Your task to perform on an android device: set an alarm Image 0: 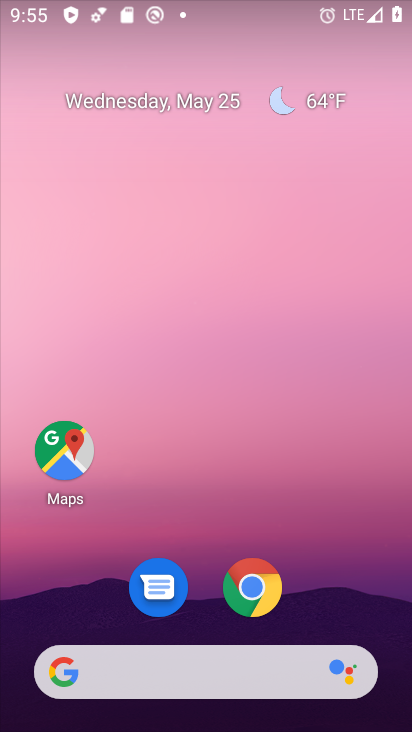
Step 0: drag from (100, 643) to (199, 195)
Your task to perform on an android device: set an alarm Image 1: 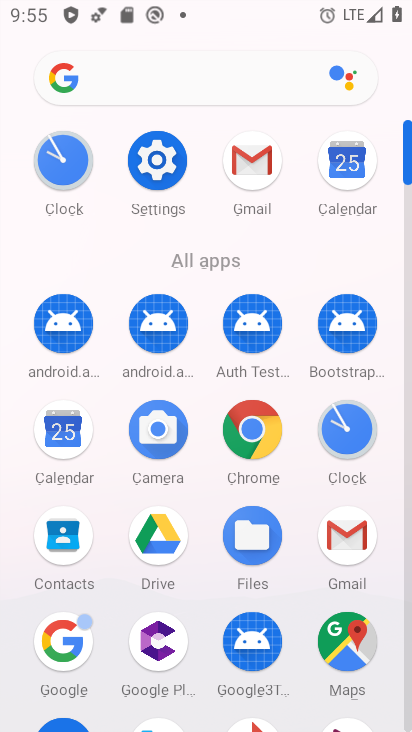
Step 1: click (338, 450)
Your task to perform on an android device: set an alarm Image 2: 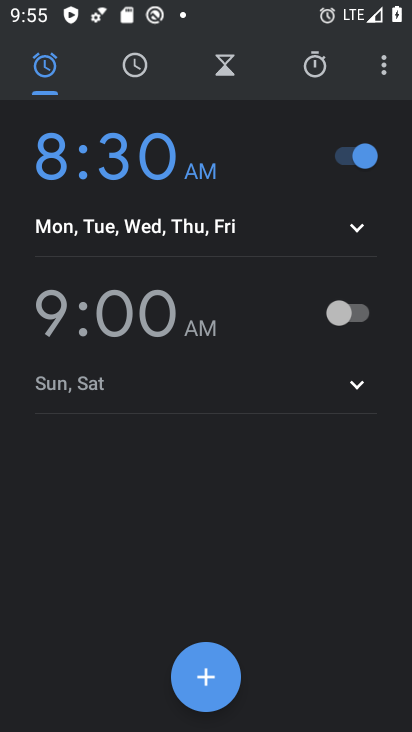
Step 2: task complete